Your task to perform on an android device: Open Google Maps and go to "Timeline" Image 0: 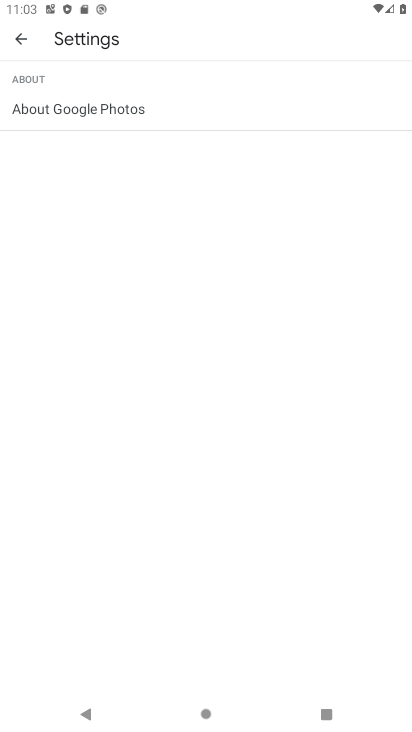
Step 0: press home button
Your task to perform on an android device: Open Google Maps and go to "Timeline" Image 1: 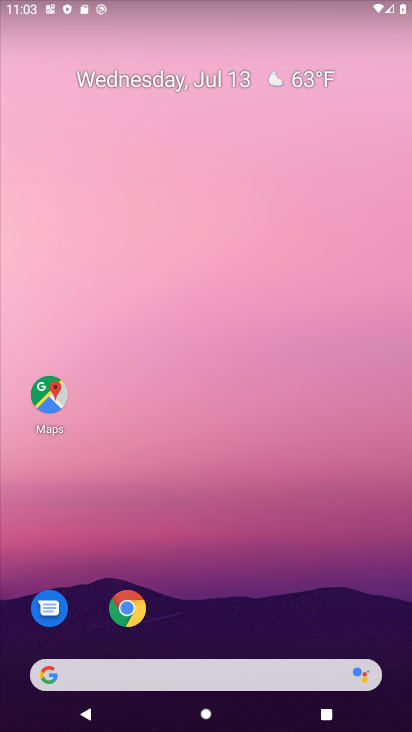
Step 1: click (49, 382)
Your task to perform on an android device: Open Google Maps and go to "Timeline" Image 2: 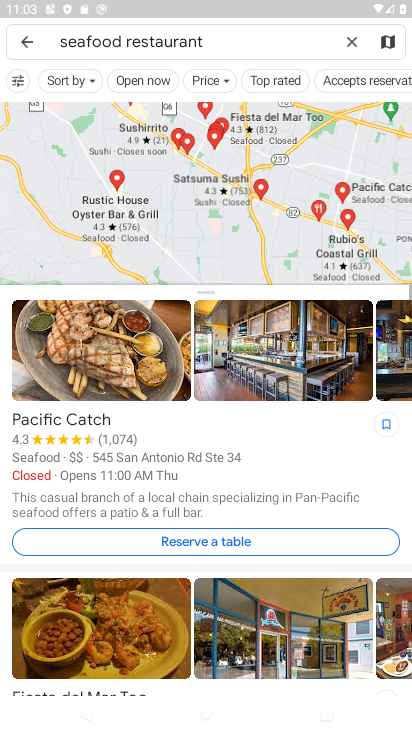
Step 2: click (20, 32)
Your task to perform on an android device: Open Google Maps and go to "Timeline" Image 3: 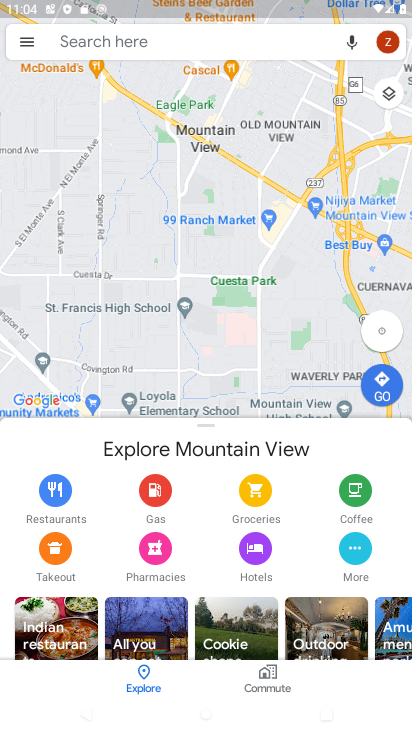
Step 3: task complete